Your task to perform on an android device: turn on sleep mode Image 0: 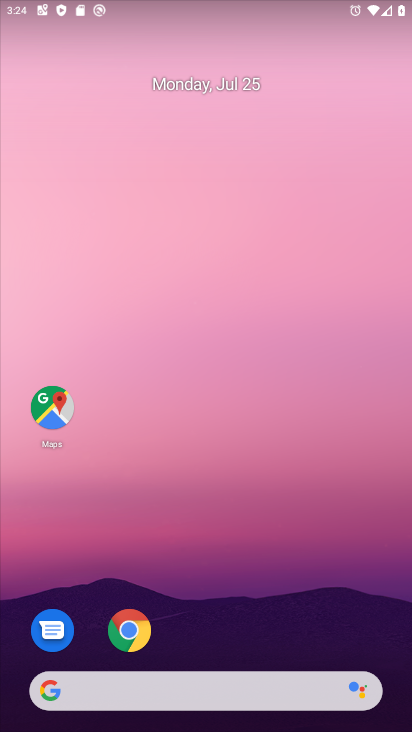
Step 0: drag from (210, 694) to (179, 4)
Your task to perform on an android device: turn on sleep mode Image 1: 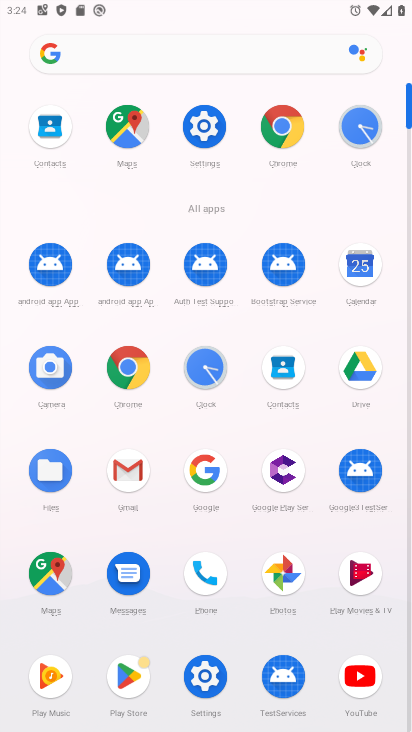
Step 1: click (206, 127)
Your task to perform on an android device: turn on sleep mode Image 2: 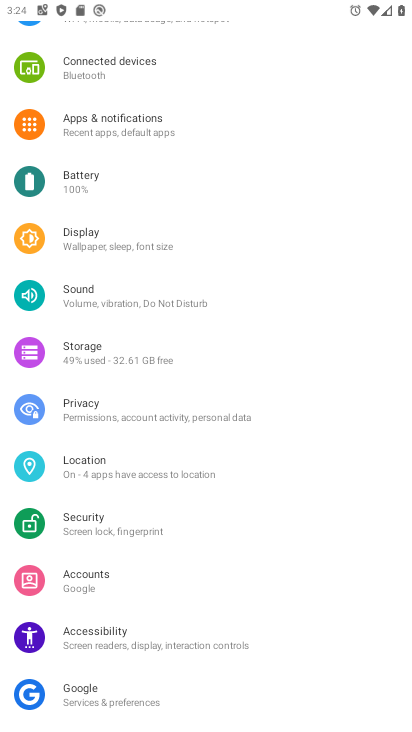
Step 2: click (98, 256)
Your task to perform on an android device: turn on sleep mode Image 3: 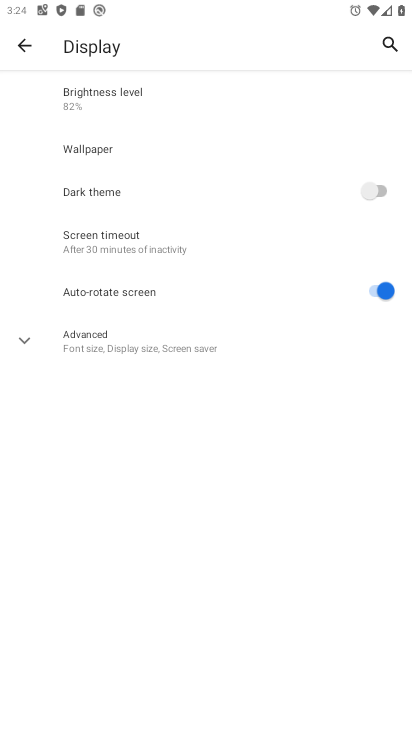
Step 3: click (101, 347)
Your task to perform on an android device: turn on sleep mode Image 4: 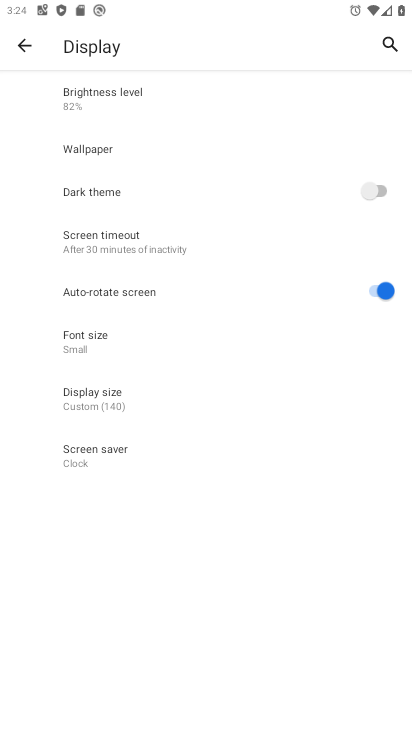
Step 4: task complete